Your task to perform on an android device: stop showing notifications on the lock screen Image 0: 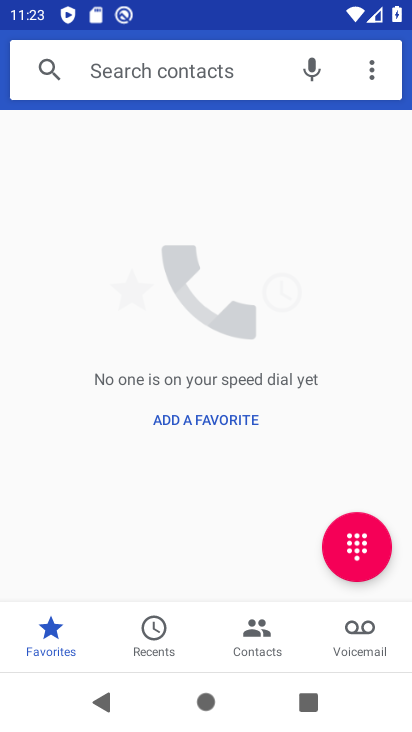
Step 0: press back button
Your task to perform on an android device: stop showing notifications on the lock screen Image 1: 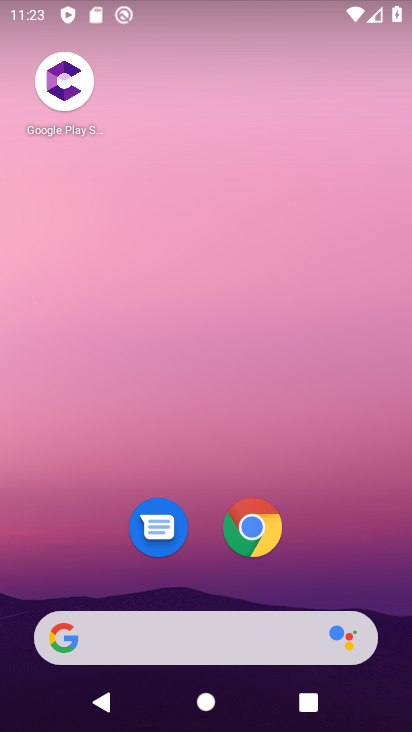
Step 1: drag from (303, 555) to (225, 59)
Your task to perform on an android device: stop showing notifications on the lock screen Image 2: 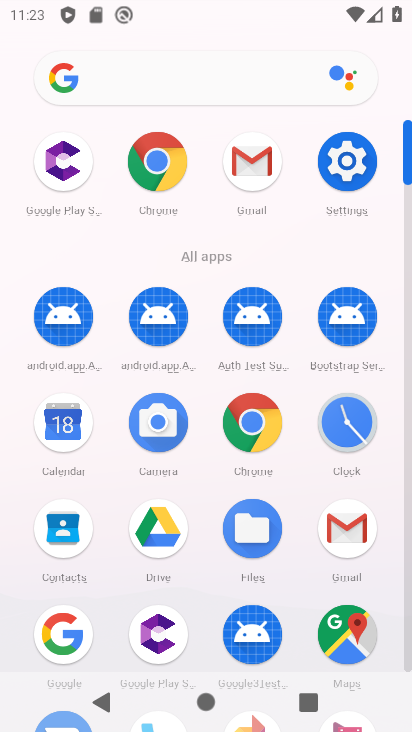
Step 2: click (346, 168)
Your task to perform on an android device: stop showing notifications on the lock screen Image 3: 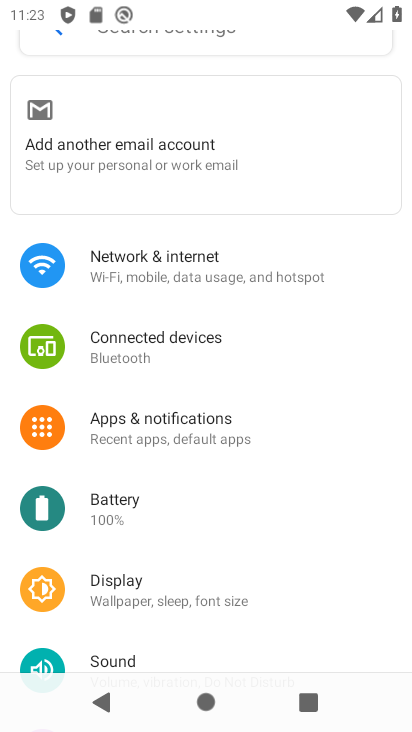
Step 3: click (132, 413)
Your task to perform on an android device: stop showing notifications on the lock screen Image 4: 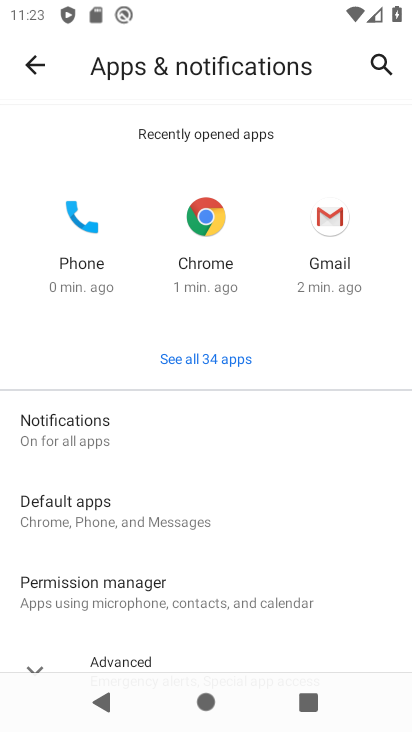
Step 4: click (158, 436)
Your task to perform on an android device: stop showing notifications on the lock screen Image 5: 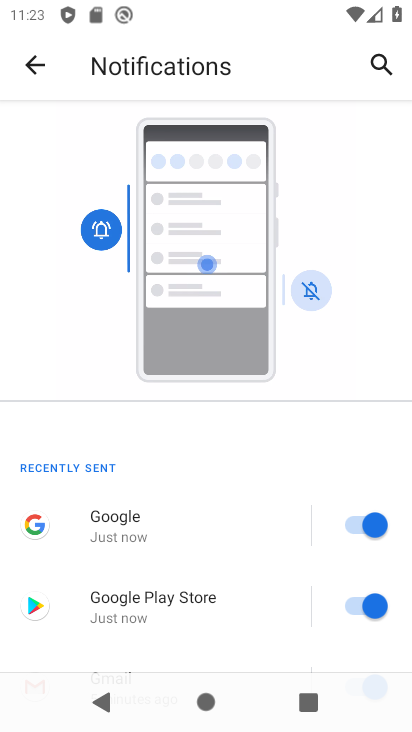
Step 5: drag from (205, 562) to (230, 346)
Your task to perform on an android device: stop showing notifications on the lock screen Image 6: 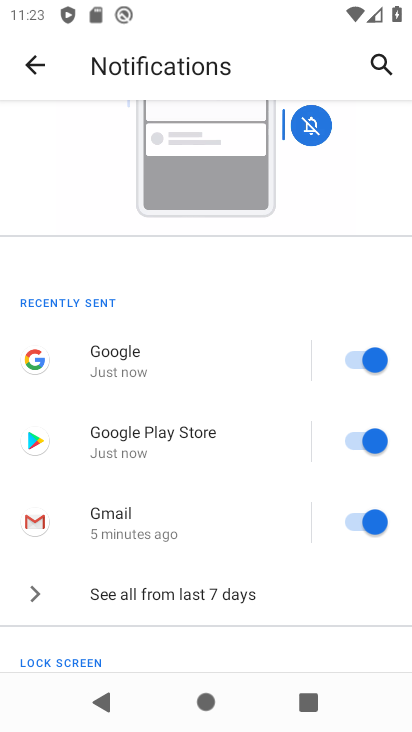
Step 6: drag from (260, 540) to (258, 352)
Your task to perform on an android device: stop showing notifications on the lock screen Image 7: 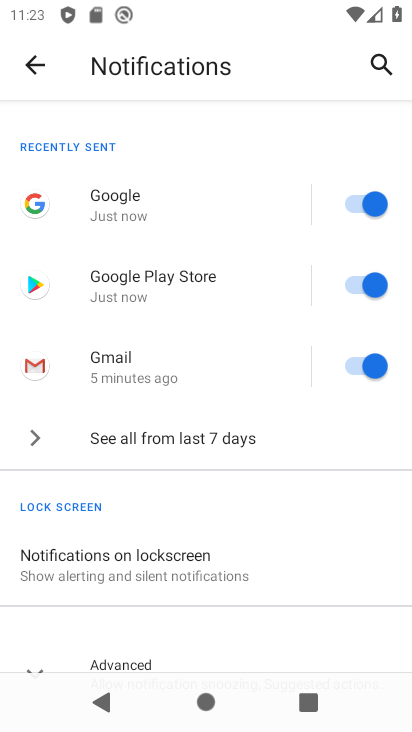
Step 7: click (253, 553)
Your task to perform on an android device: stop showing notifications on the lock screen Image 8: 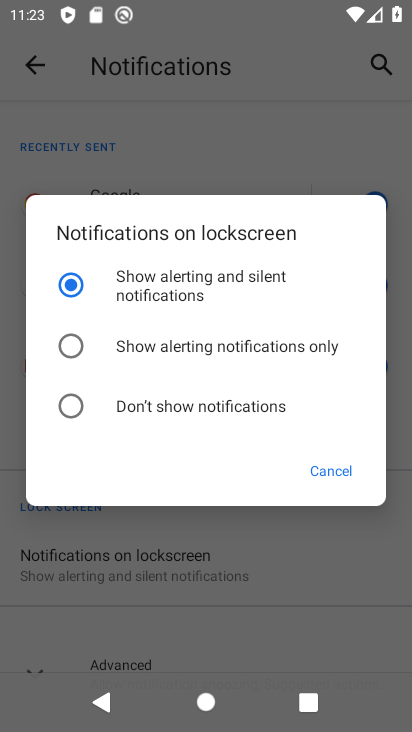
Step 8: click (195, 407)
Your task to perform on an android device: stop showing notifications on the lock screen Image 9: 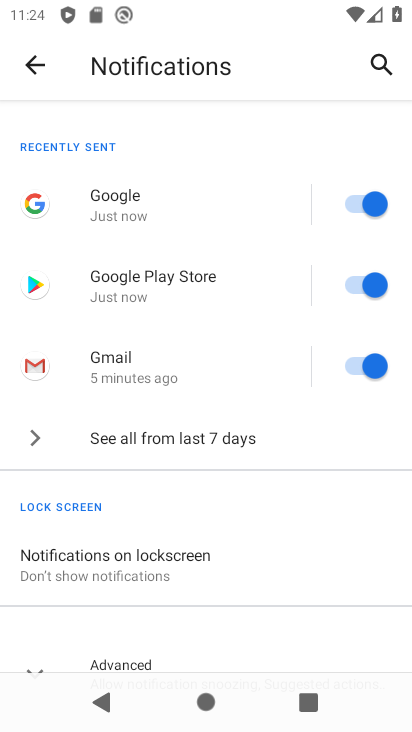
Step 9: task complete